Your task to perform on an android device: turn on data saver in the chrome app Image 0: 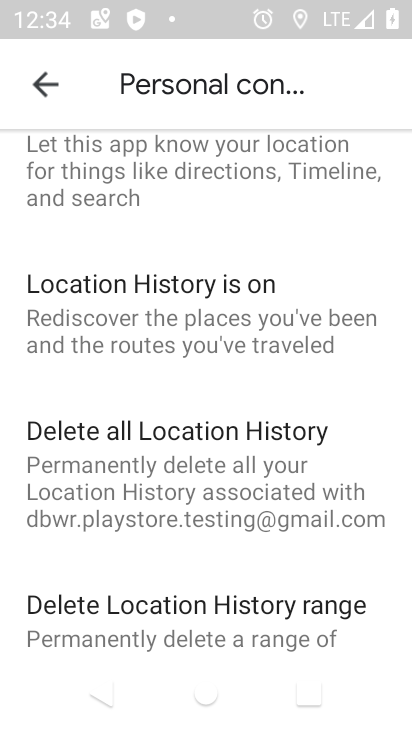
Step 0: press home button
Your task to perform on an android device: turn on data saver in the chrome app Image 1: 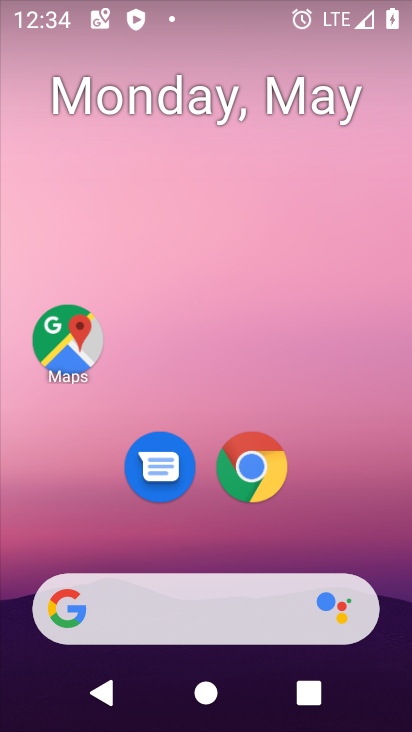
Step 1: click (263, 478)
Your task to perform on an android device: turn on data saver in the chrome app Image 2: 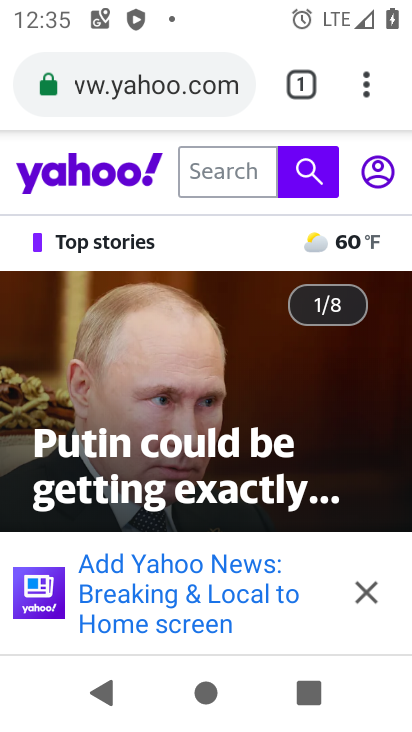
Step 2: click (369, 87)
Your task to perform on an android device: turn on data saver in the chrome app Image 3: 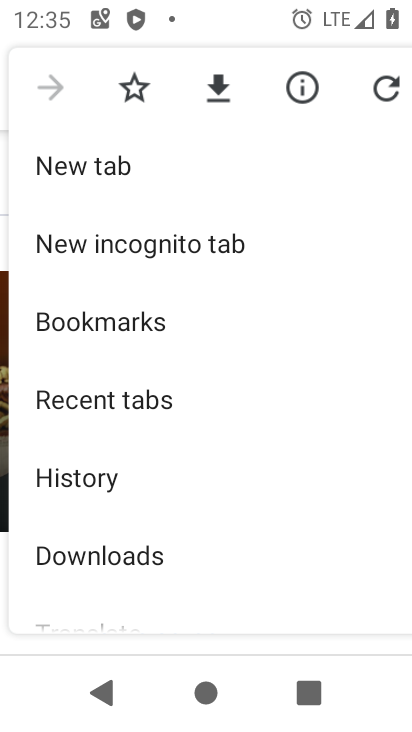
Step 3: drag from (126, 451) to (156, 58)
Your task to perform on an android device: turn on data saver in the chrome app Image 4: 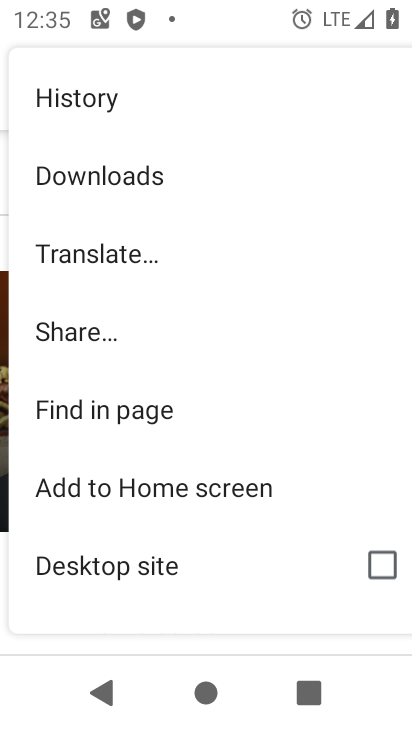
Step 4: drag from (162, 533) to (159, 151)
Your task to perform on an android device: turn on data saver in the chrome app Image 5: 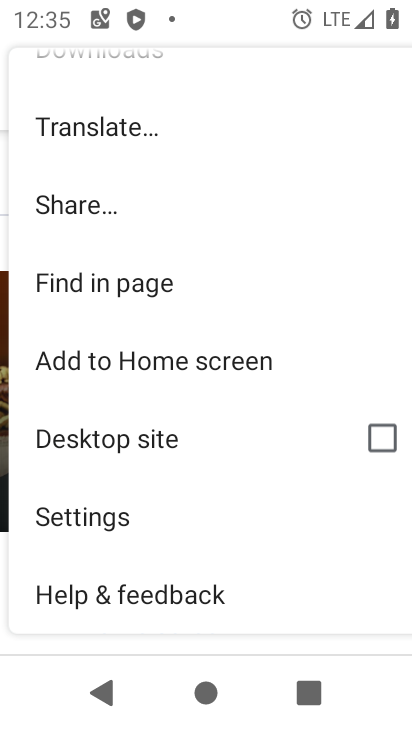
Step 5: click (78, 521)
Your task to perform on an android device: turn on data saver in the chrome app Image 6: 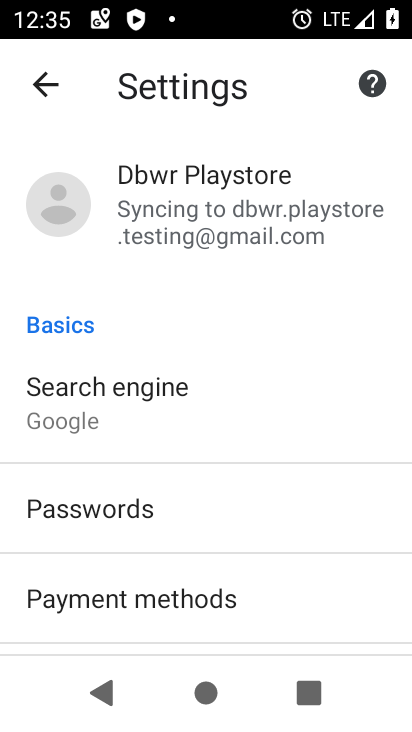
Step 6: drag from (198, 421) to (215, 49)
Your task to perform on an android device: turn on data saver in the chrome app Image 7: 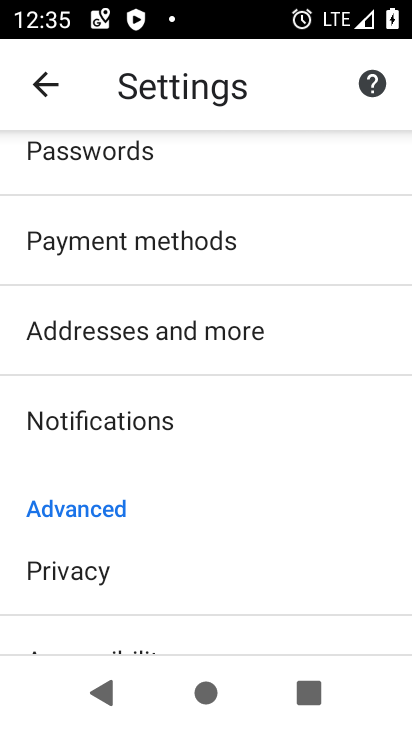
Step 7: drag from (164, 547) to (198, 51)
Your task to perform on an android device: turn on data saver in the chrome app Image 8: 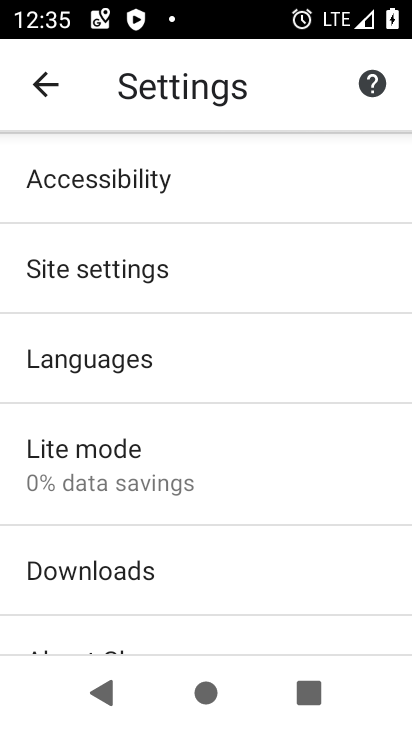
Step 8: click (100, 474)
Your task to perform on an android device: turn on data saver in the chrome app Image 9: 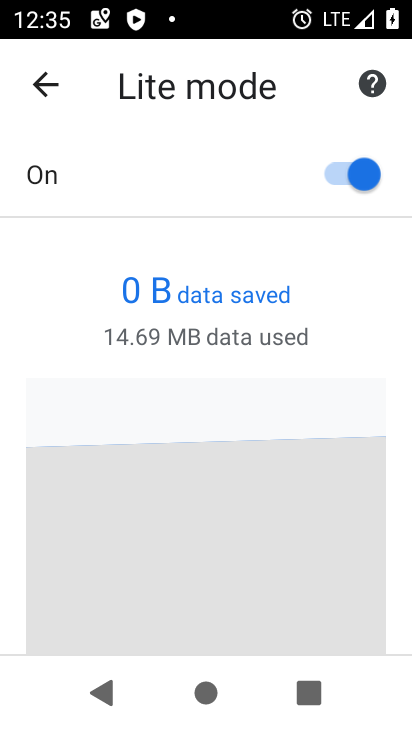
Step 9: task complete